Your task to perform on an android device: Search for seafood restaurants on Google Maps Image 0: 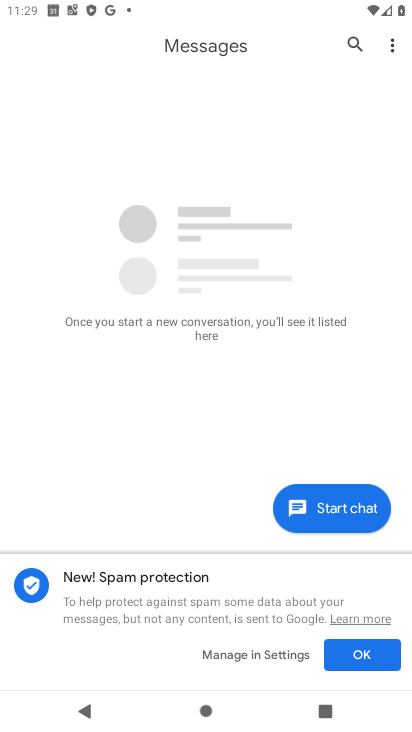
Step 0: press home button
Your task to perform on an android device: Search for seafood restaurants on Google Maps Image 1: 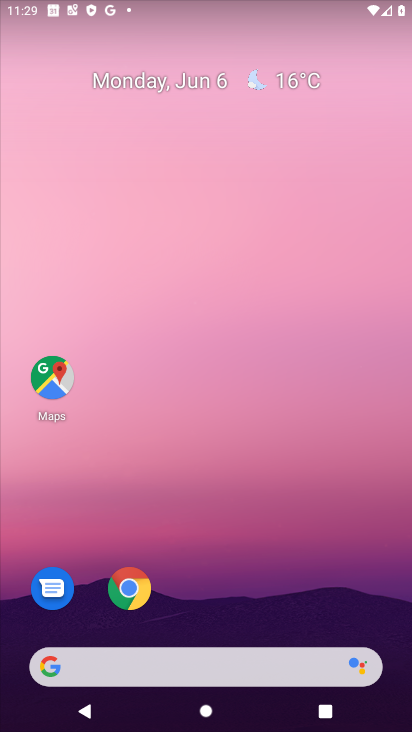
Step 1: click (61, 393)
Your task to perform on an android device: Search for seafood restaurants on Google Maps Image 2: 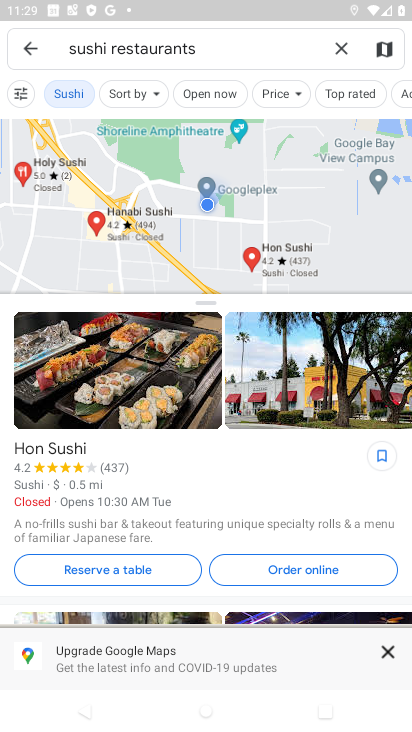
Step 2: click (345, 37)
Your task to perform on an android device: Search for seafood restaurants on Google Maps Image 3: 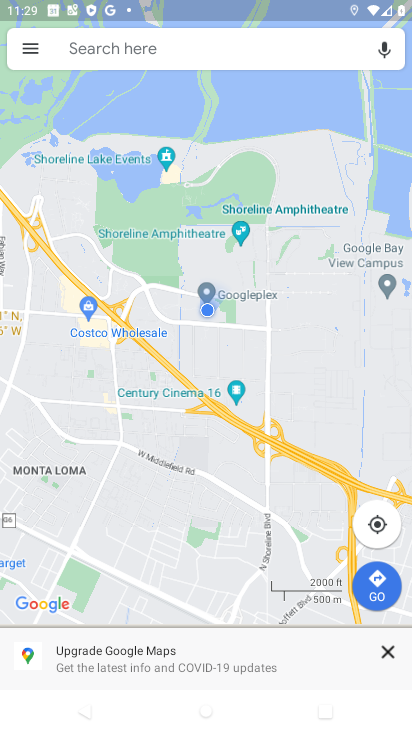
Step 3: click (198, 52)
Your task to perform on an android device: Search for seafood restaurants on Google Maps Image 4: 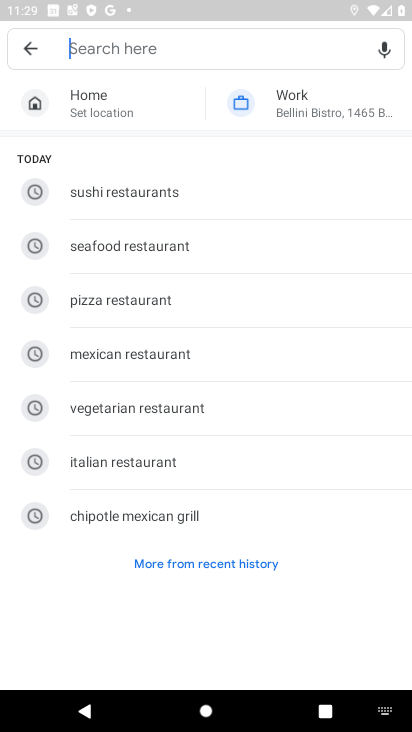
Step 4: click (148, 248)
Your task to perform on an android device: Search for seafood restaurants on Google Maps Image 5: 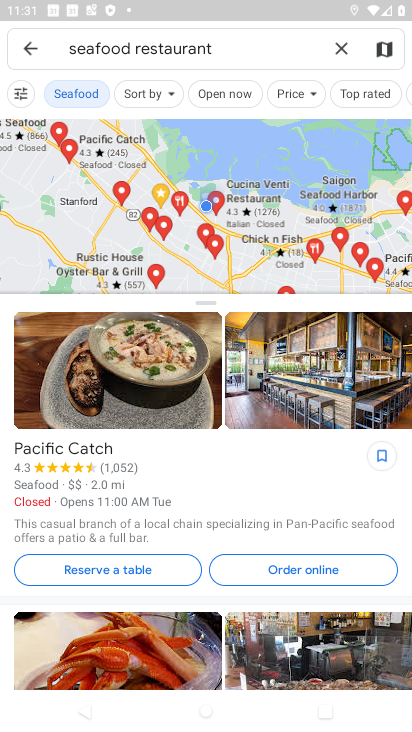
Step 5: task complete